Your task to perform on an android device: turn off wifi Image 0: 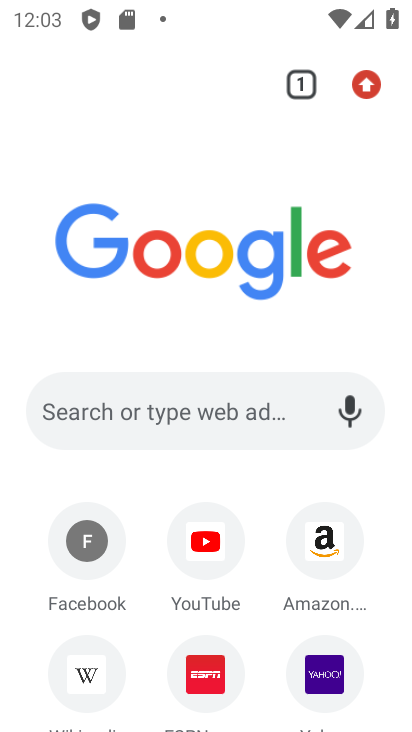
Step 0: press home button
Your task to perform on an android device: turn off wifi Image 1: 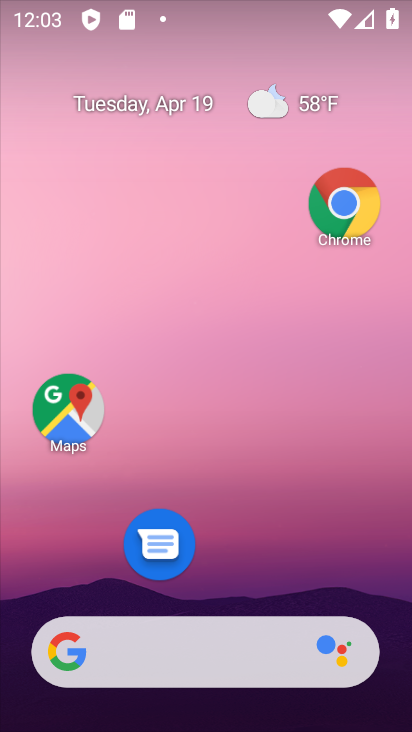
Step 1: drag from (254, 675) to (254, 249)
Your task to perform on an android device: turn off wifi Image 2: 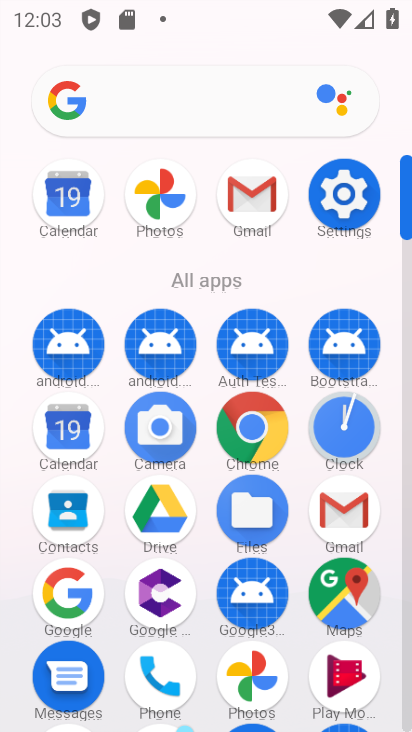
Step 2: click (341, 201)
Your task to perform on an android device: turn off wifi Image 3: 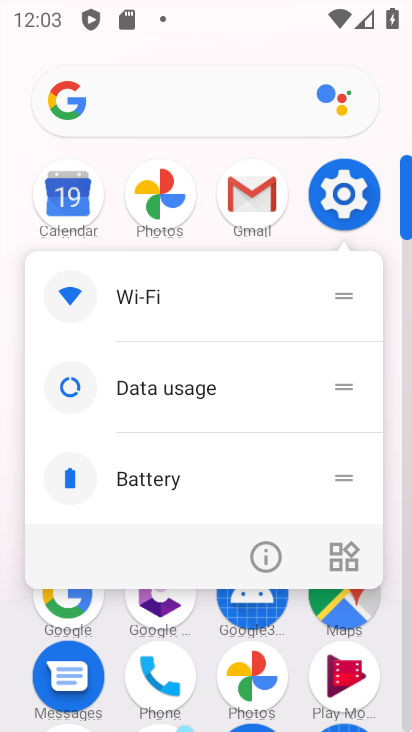
Step 3: click (339, 199)
Your task to perform on an android device: turn off wifi Image 4: 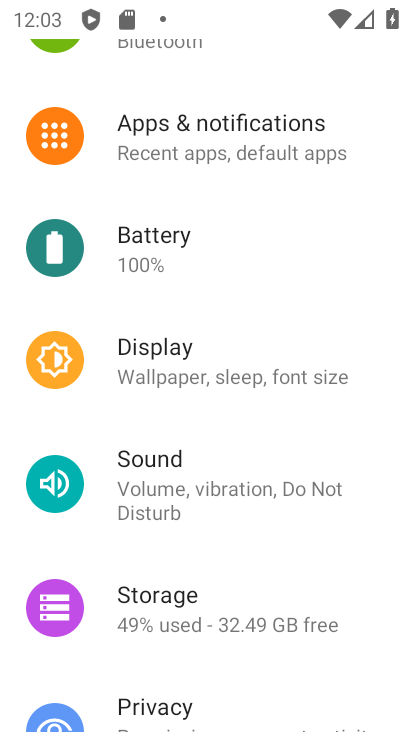
Step 4: drag from (277, 95) to (249, 557)
Your task to perform on an android device: turn off wifi Image 5: 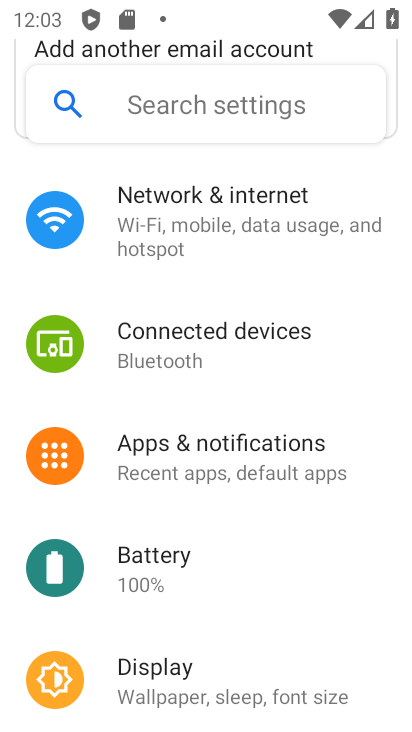
Step 5: click (215, 229)
Your task to perform on an android device: turn off wifi Image 6: 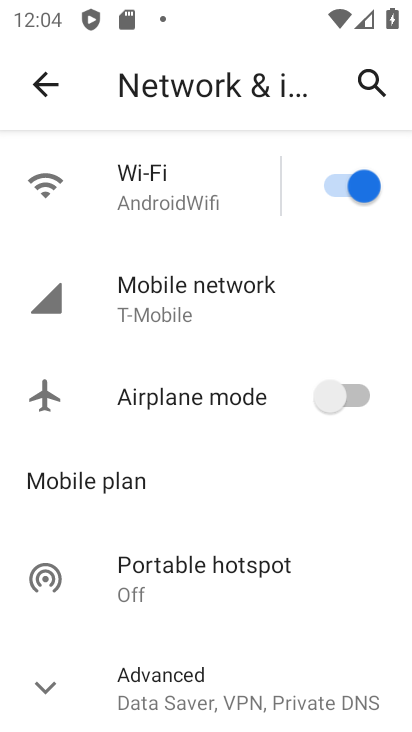
Step 6: click (330, 177)
Your task to perform on an android device: turn off wifi Image 7: 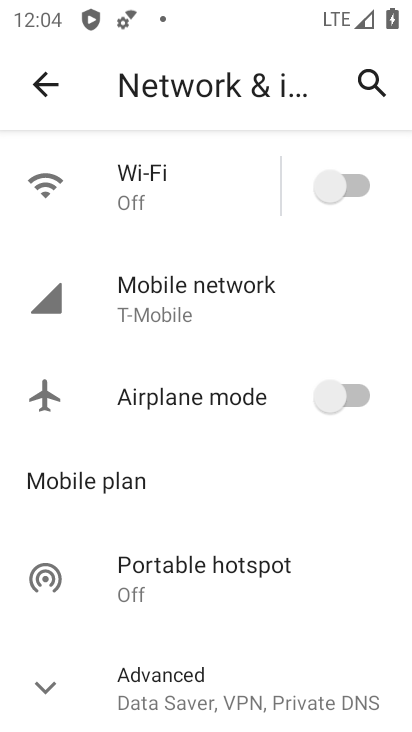
Step 7: task complete